Your task to perform on an android device: Search for sushi restaurants on Maps Image 0: 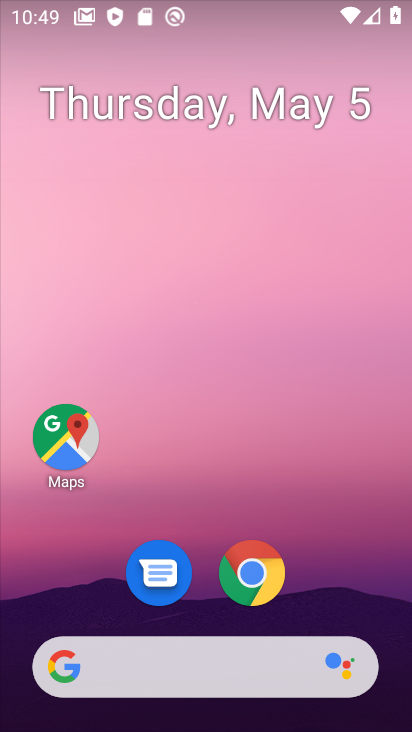
Step 0: drag from (325, 586) to (334, 160)
Your task to perform on an android device: Search for sushi restaurants on Maps Image 1: 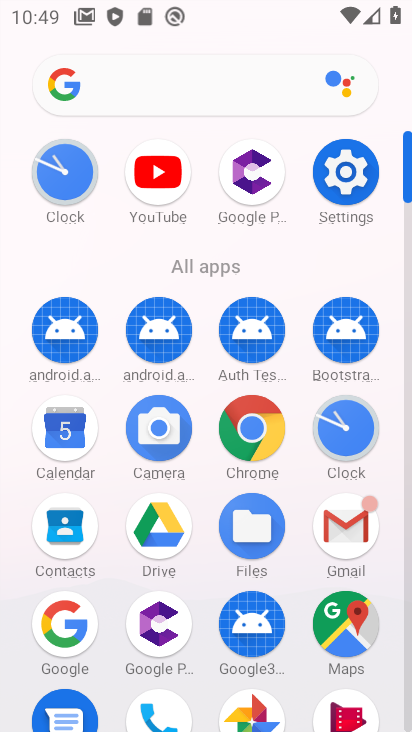
Step 1: click (339, 621)
Your task to perform on an android device: Search for sushi restaurants on Maps Image 2: 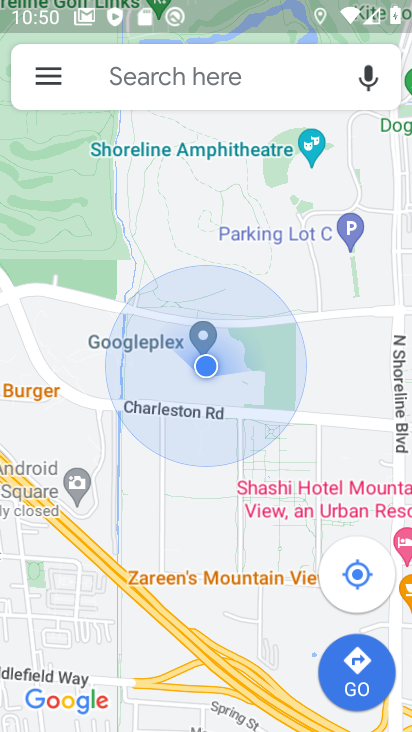
Step 2: click (213, 70)
Your task to perform on an android device: Search for sushi restaurants on Maps Image 3: 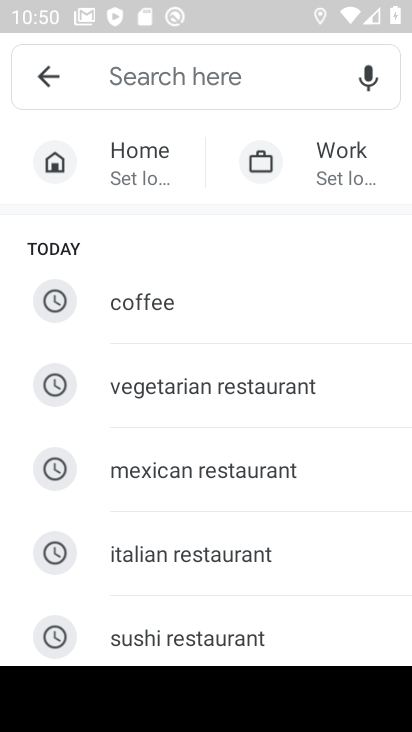
Step 3: type "sushi restaurants"
Your task to perform on an android device: Search for sushi restaurants on Maps Image 4: 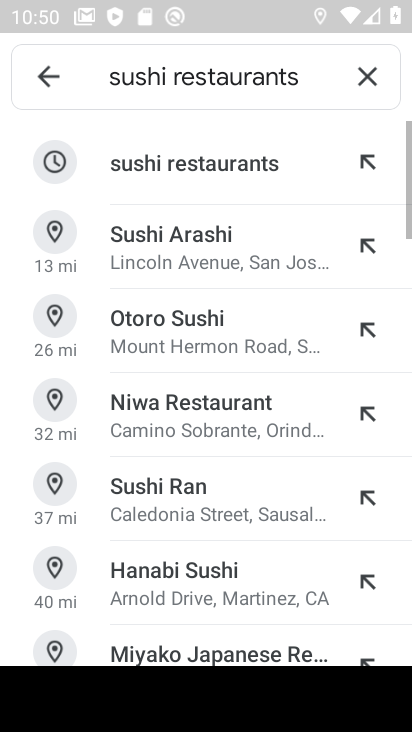
Step 4: click (236, 174)
Your task to perform on an android device: Search for sushi restaurants on Maps Image 5: 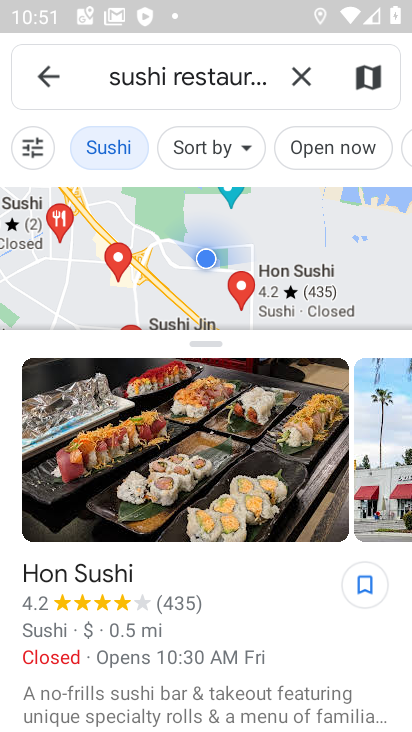
Step 5: task complete